Your task to perform on an android device: Go to wifi settings Image 0: 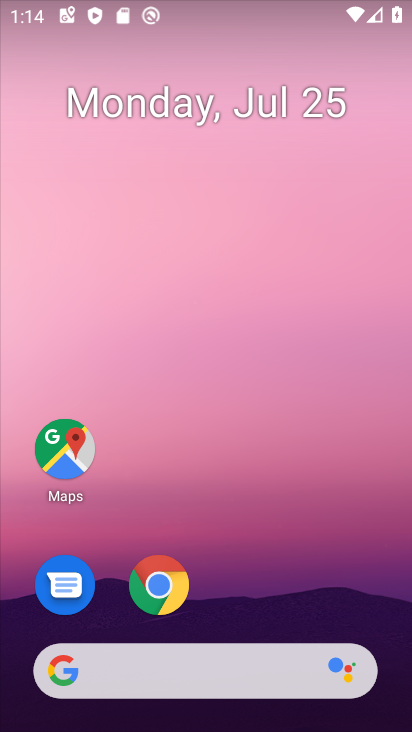
Step 0: drag from (245, 592) to (285, 23)
Your task to perform on an android device: Go to wifi settings Image 1: 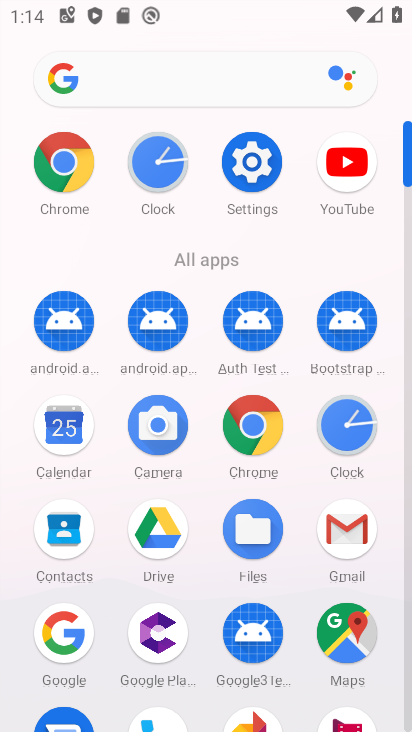
Step 1: click (254, 169)
Your task to perform on an android device: Go to wifi settings Image 2: 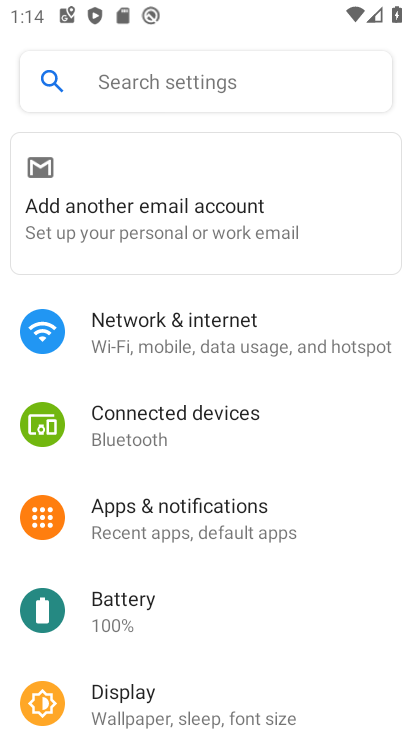
Step 2: click (240, 335)
Your task to perform on an android device: Go to wifi settings Image 3: 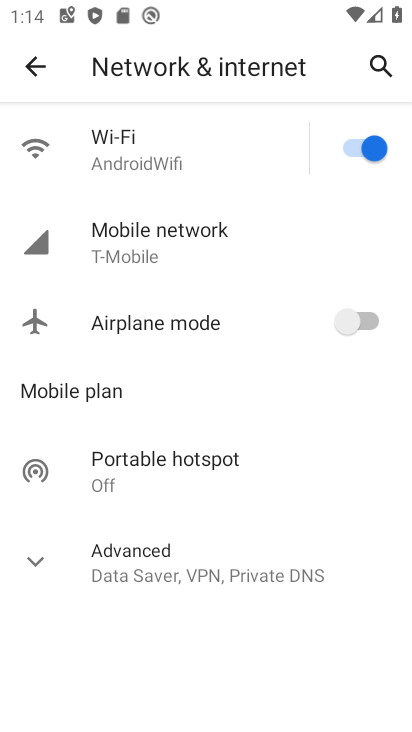
Step 3: click (118, 159)
Your task to perform on an android device: Go to wifi settings Image 4: 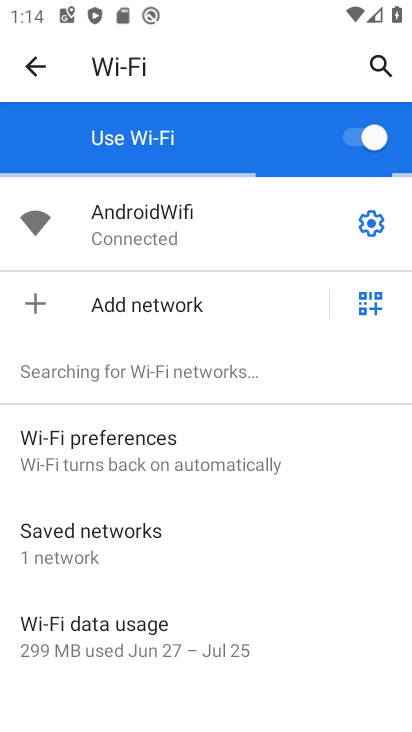
Step 4: task complete